Your task to perform on an android device: Open Amazon Image 0: 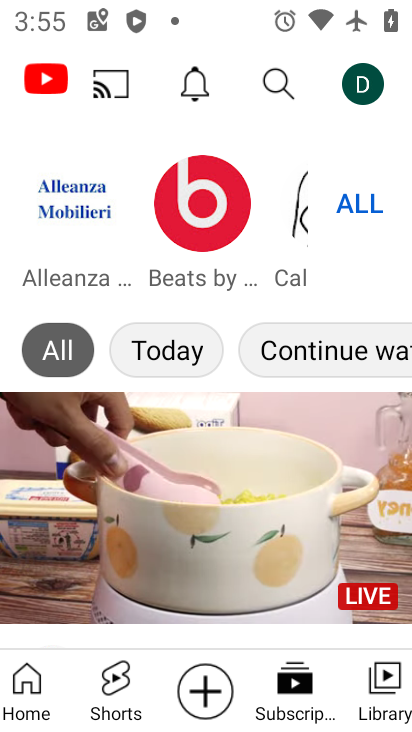
Step 0: press home button
Your task to perform on an android device: Open Amazon Image 1: 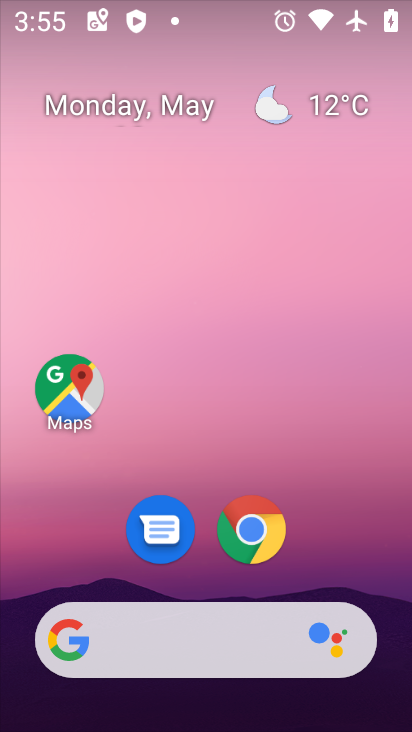
Step 1: drag from (296, 576) to (289, 140)
Your task to perform on an android device: Open Amazon Image 2: 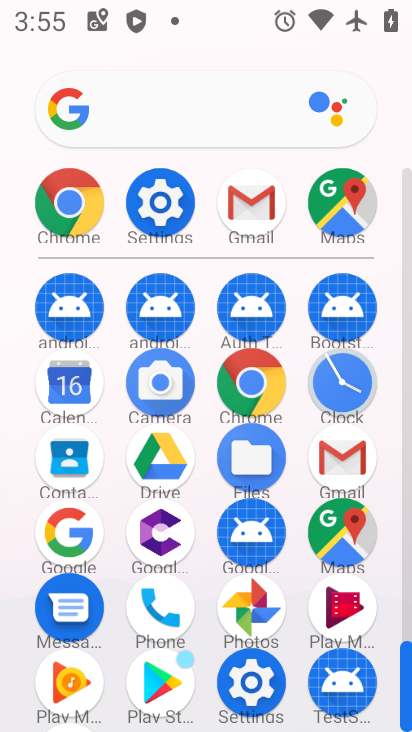
Step 2: click (247, 375)
Your task to perform on an android device: Open Amazon Image 3: 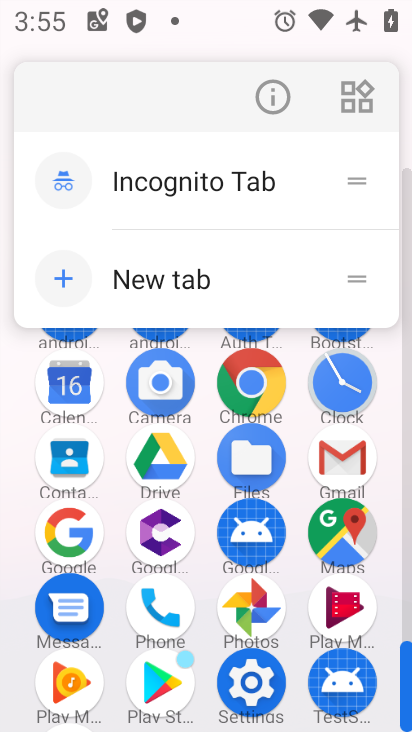
Step 3: click (251, 390)
Your task to perform on an android device: Open Amazon Image 4: 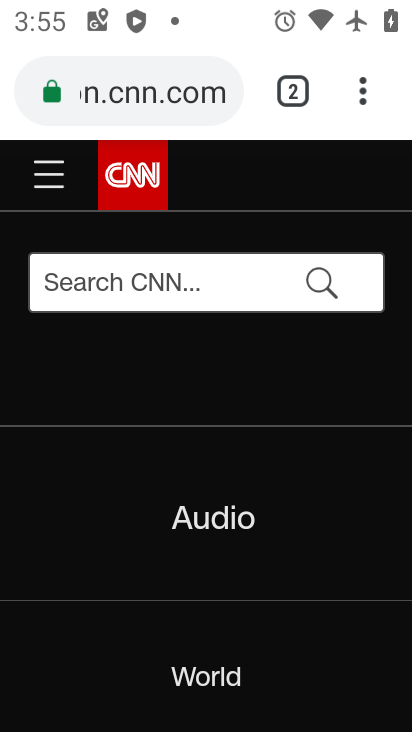
Step 4: click (100, 78)
Your task to perform on an android device: Open Amazon Image 5: 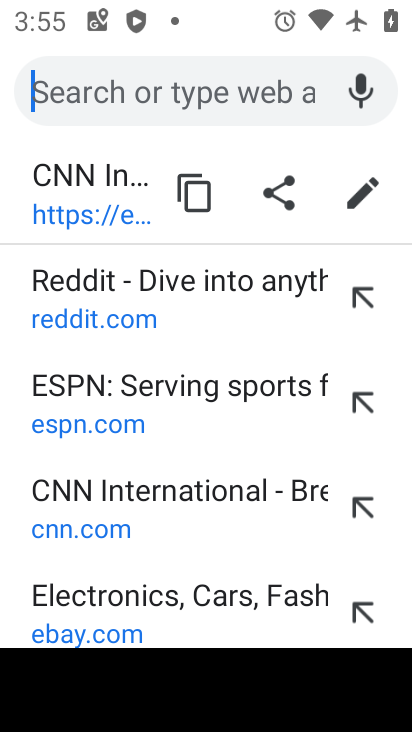
Step 5: type "amazon"
Your task to perform on an android device: Open Amazon Image 6: 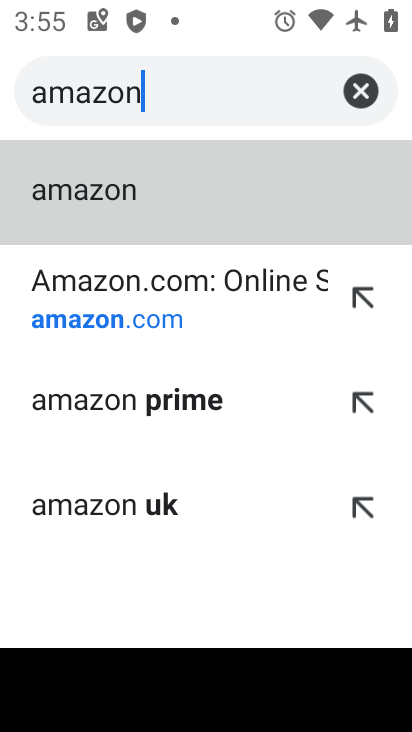
Step 6: click (62, 193)
Your task to perform on an android device: Open Amazon Image 7: 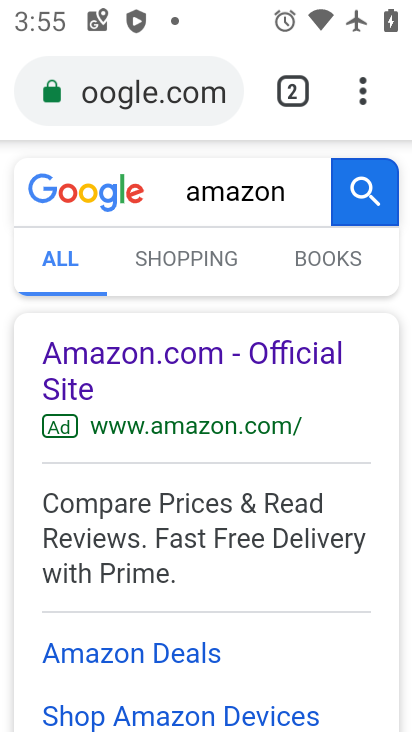
Step 7: click (68, 350)
Your task to perform on an android device: Open Amazon Image 8: 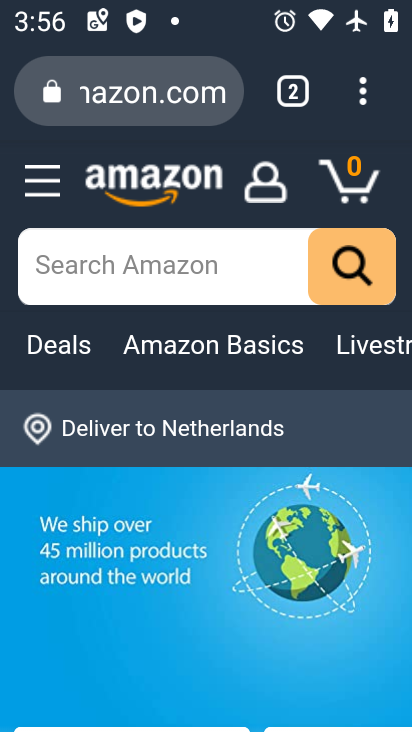
Step 8: task complete